Your task to perform on an android device: Do I have any events tomorrow? Image 0: 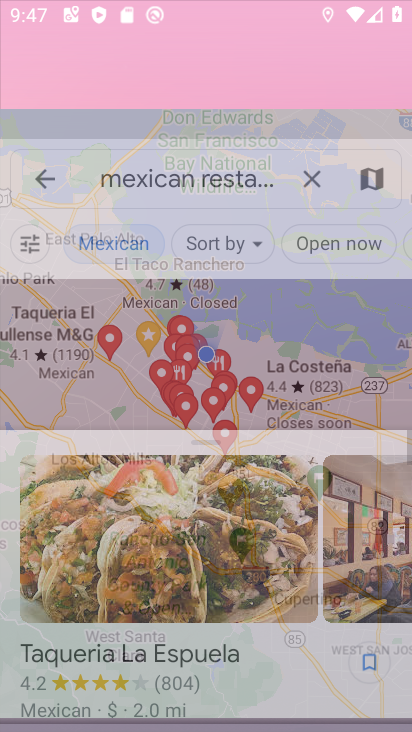
Step 0: drag from (314, 347) to (340, 74)
Your task to perform on an android device: Do I have any events tomorrow? Image 1: 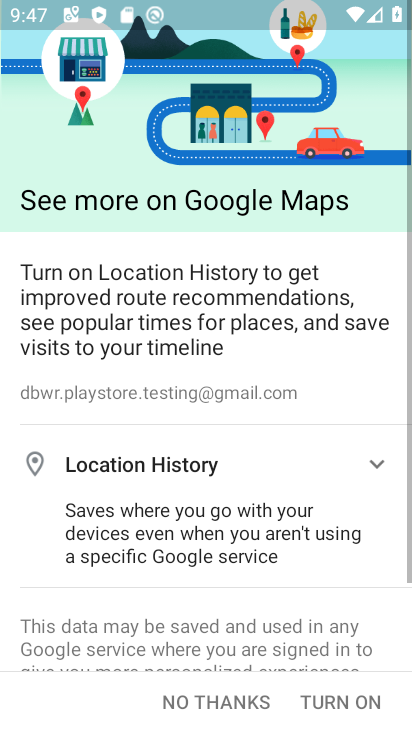
Step 1: press home button
Your task to perform on an android device: Do I have any events tomorrow? Image 2: 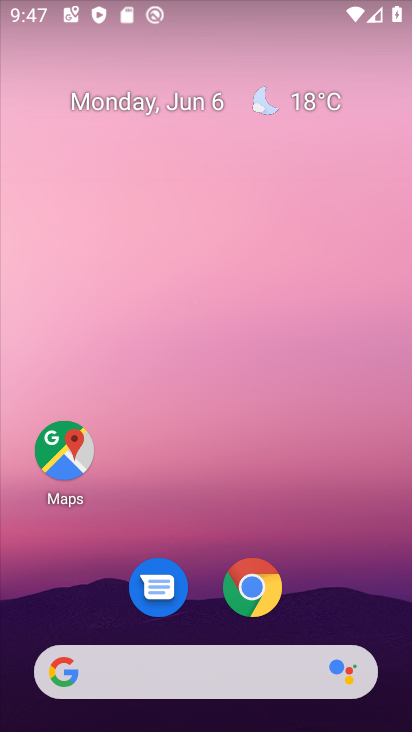
Step 2: drag from (358, 560) to (295, 83)
Your task to perform on an android device: Do I have any events tomorrow? Image 3: 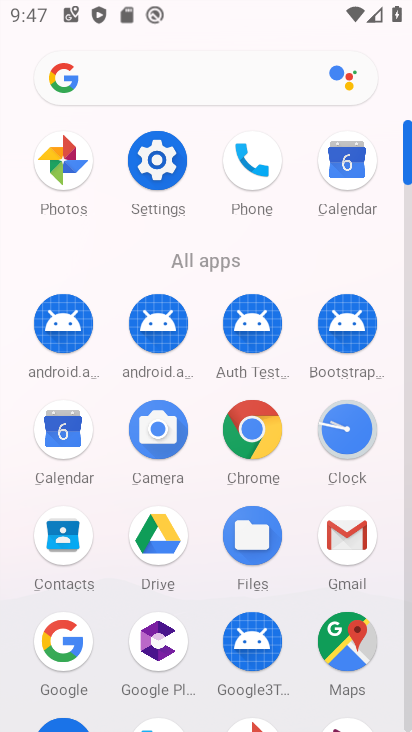
Step 3: click (339, 156)
Your task to perform on an android device: Do I have any events tomorrow? Image 4: 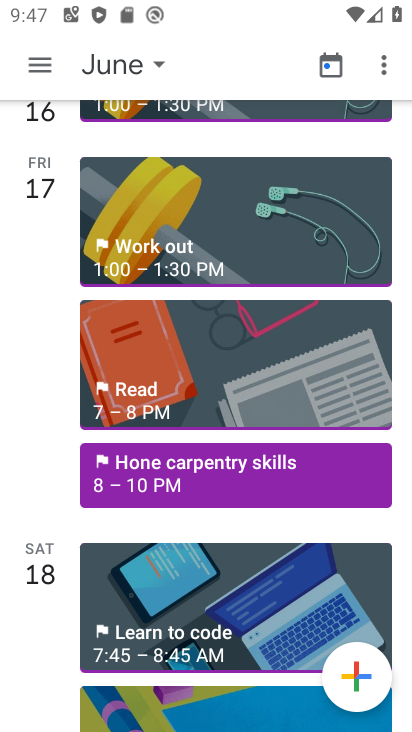
Step 4: drag from (245, 146) to (290, 632)
Your task to perform on an android device: Do I have any events tomorrow? Image 5: 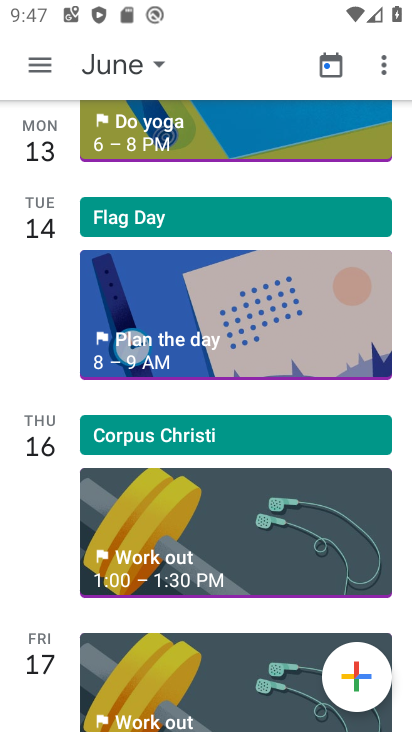
Step 5: click (101, 56)
Your task to perform on an android device: Do I have any events tomorrow? Image 6: 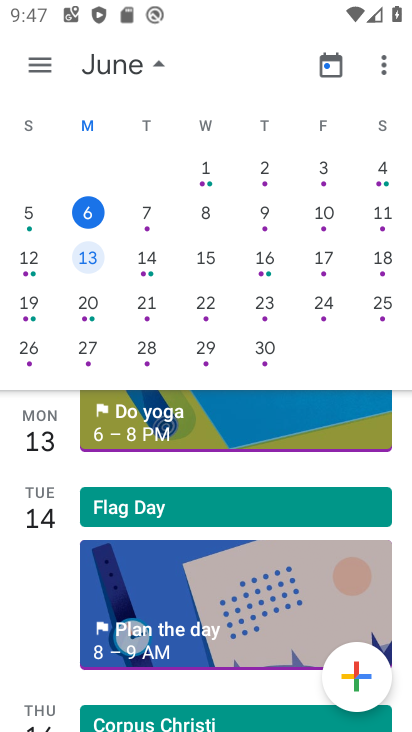
Step 6: click (205, 211)
Your task to perform on an android device: Do I have any events tomorrow? Image 7: 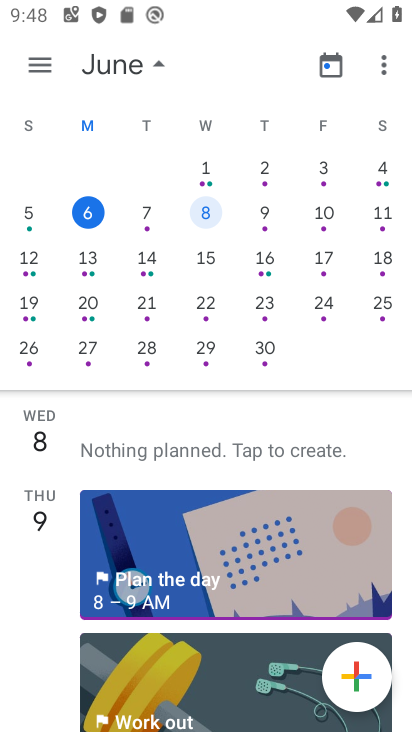
Step 7: click (40, 66)
Your task to perform on an android device: Do I have any events tomorrow? Image 8: 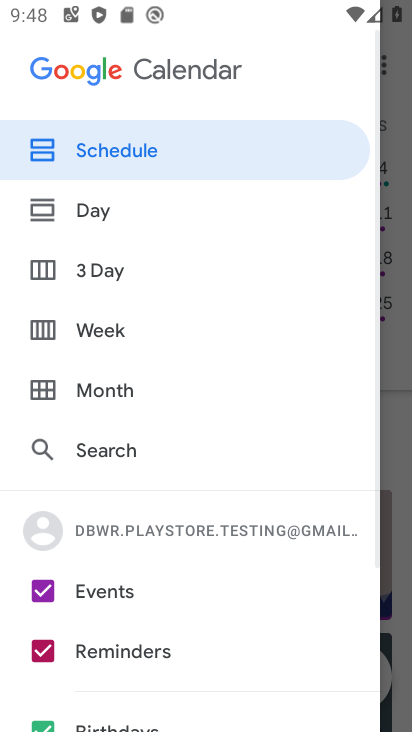
Step 8: click (136, 386)
Your task to perform on an android device: Do I have any events tomorrow? Image 9: 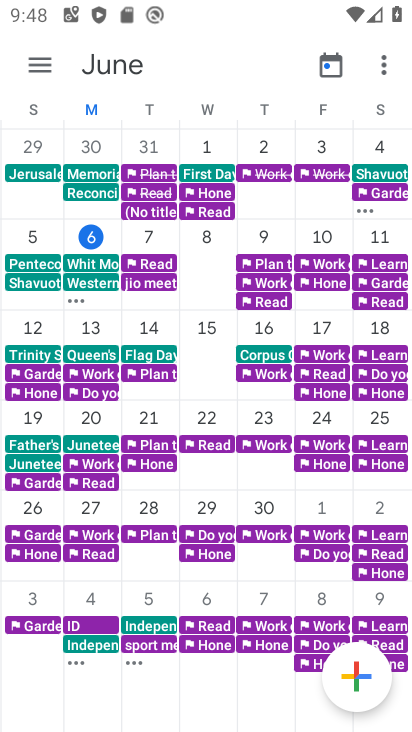
Step 9: click (219, 262)
Your task to perform on an android device: Do I have any events tomorrow? Image 10: 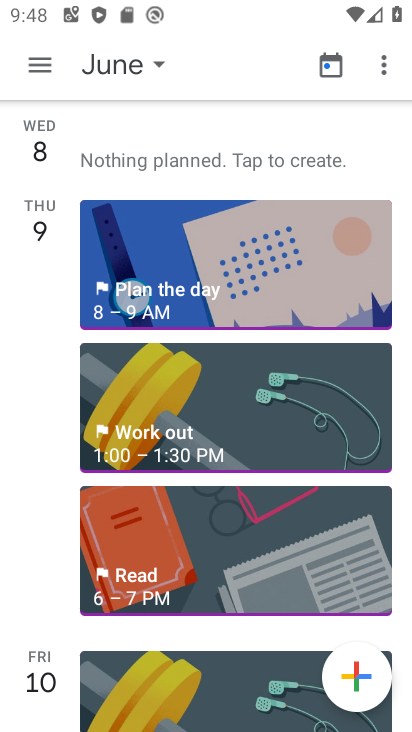
Step 10: click (174, 153)
Your task to perform on an android device: Do I have any events tomorrow? Image 11: 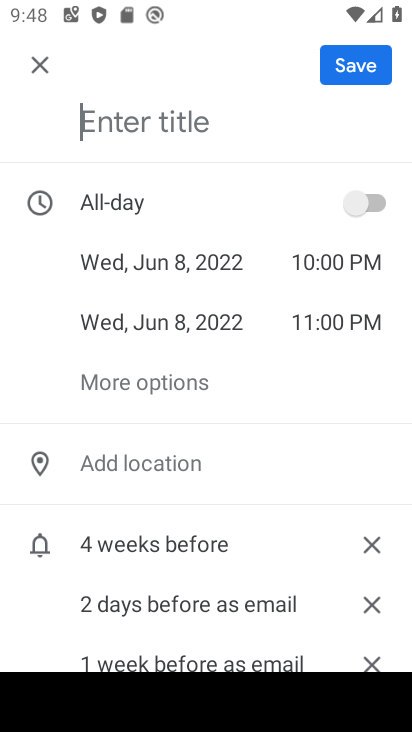
Step 11: task complete